Your task to perform on an android device: Search for Mexican restaurants on Maps Image 0: 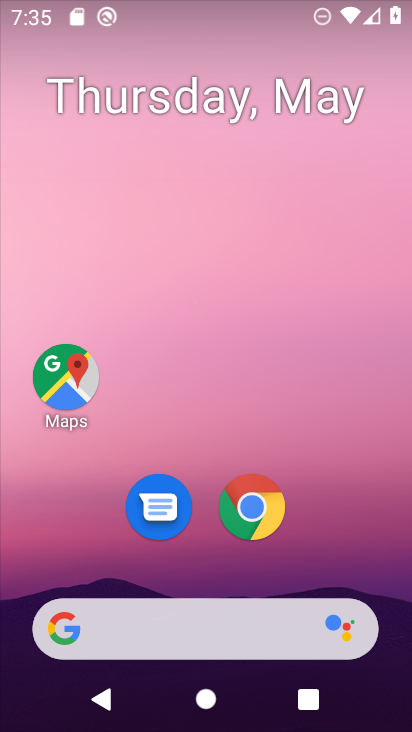
Step 0: drag from (343, 494) to (316, 1)
Your task to perform on an android device: Search for Mexican restaurants on Maps Image 1: 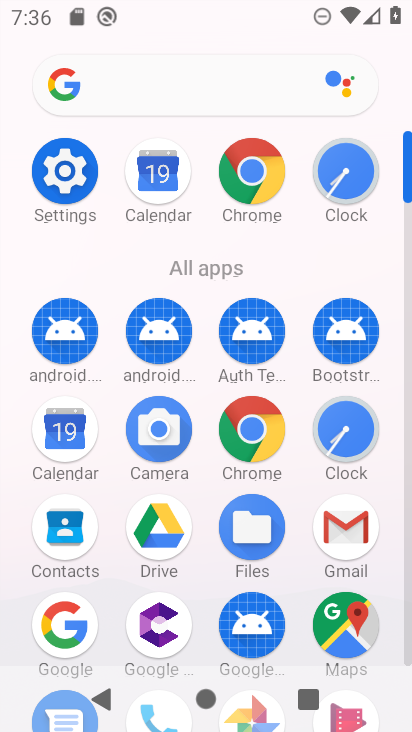
Step 1: click (355, 621)
Your task to perform on an android device: Search for Mexican restaurants on Maps Image 2: 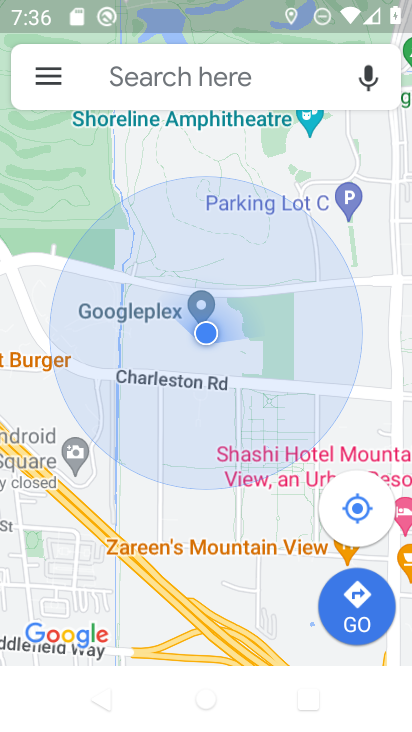
Step 2: click (165, 73)
Your task to perform on an android device: Search for Mexican restaurants on Maps Image 3: 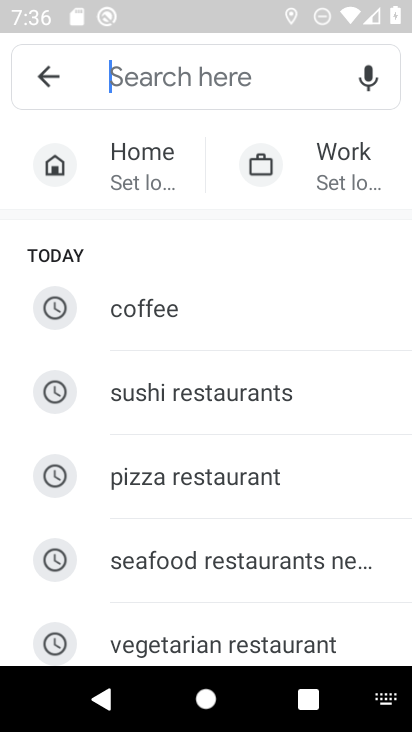
Step 3: drag from (272, 534) to (262, 220)
Your task to perform on an android device: Search for Mexican restaurants on Maps Image 4: 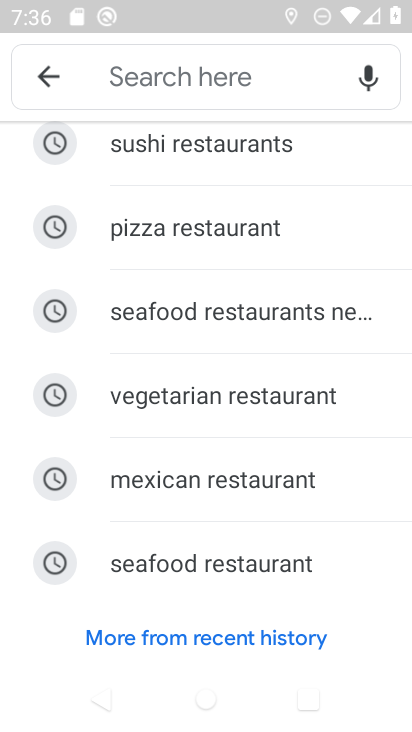
Step 4: click (180, 477)
Your task to perform on an android device: Search for Mexican restaurants on Maps Image 5: 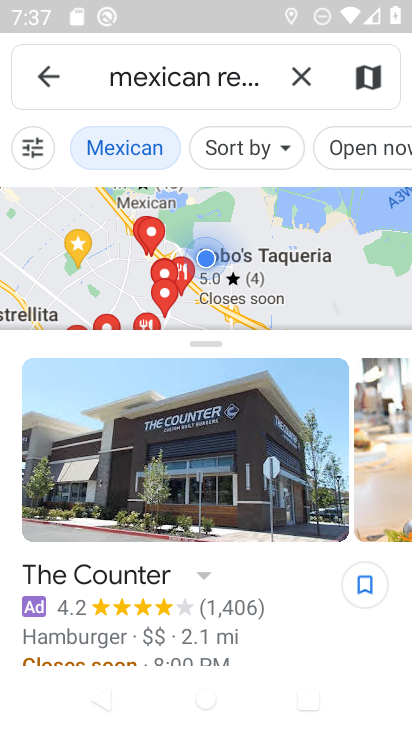
Step 5: task complete